Your task to perform on an android device: change notifications settings Image 0: 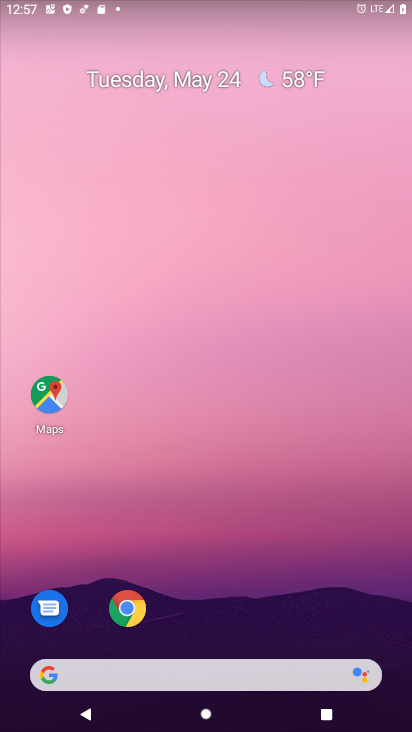
Step 0: press home button
Your task to perform on an android device: change notifications settings Image 1: 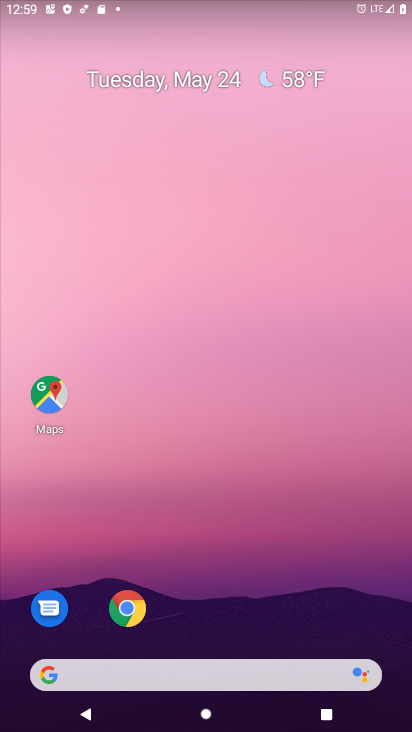
Step 1: drag from (294, 569) to (293, 107)
Your task to perform on an android device: change notifications settings Image 2: 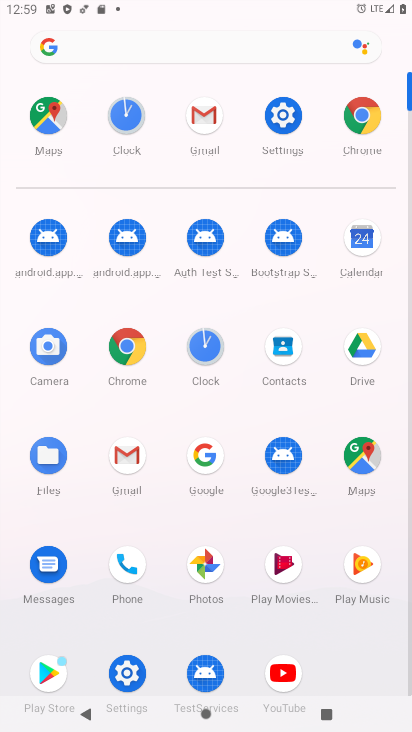
Step 2: click (274, 129)
Your task to perform on an android device: change notifications settings Image 3: 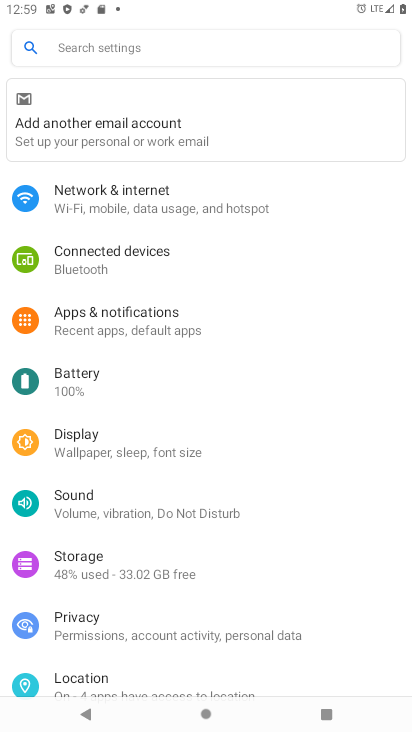
Step 3: click (113, 46)
Your task to perform on an android device: change notifications settings Image 4: 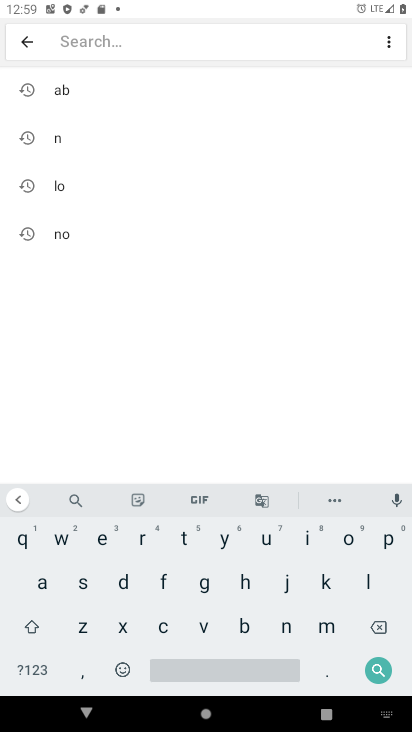
Step 4: click (285, 621)
Your task to perform on an android device: change notifications settings Image 5: 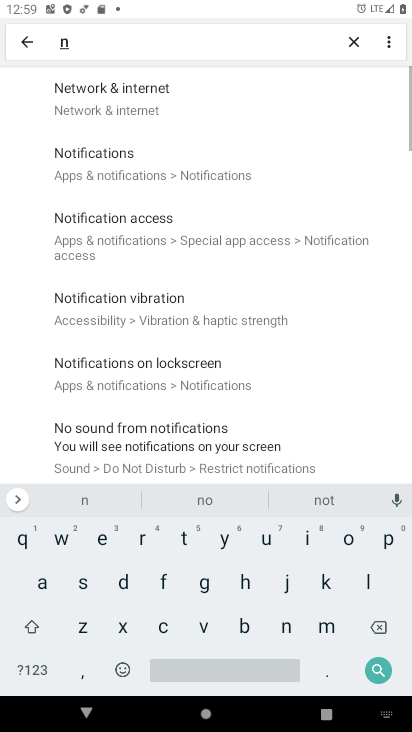
Step 5: click (344, 541)
Your task to perform on an android device: change notifications settings Image 6: 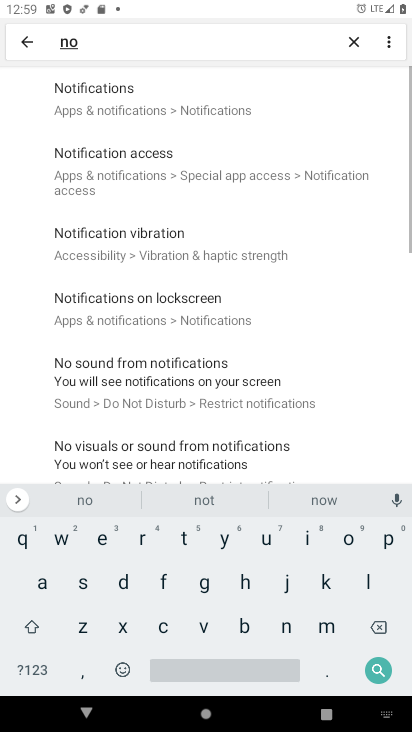
Step 6: click (143, 100)
Your task to perform on an android device: change notifications settings Image 7: 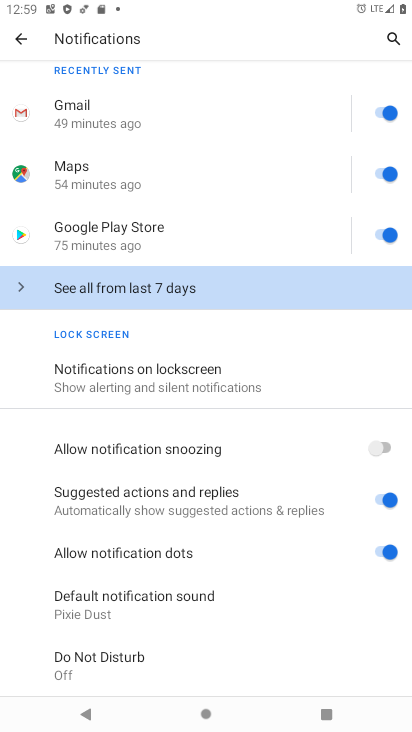
Step 7: click (139, 366)
Your task to perform on an android device: change notifications settings Image 8: 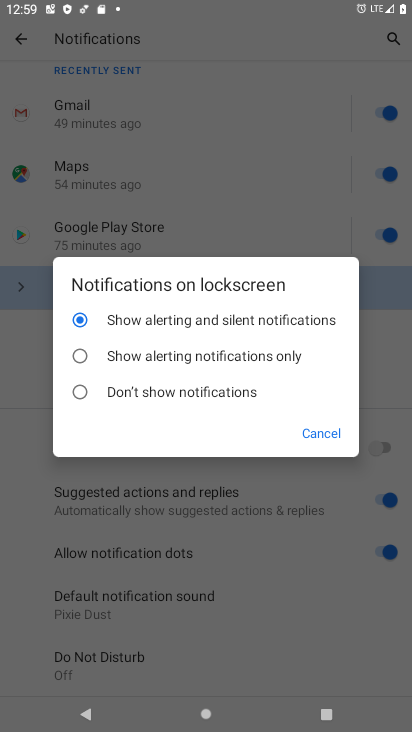
Step 8: click (131, 357)
Your task to perform on an android device: change notifications settings Image 9: 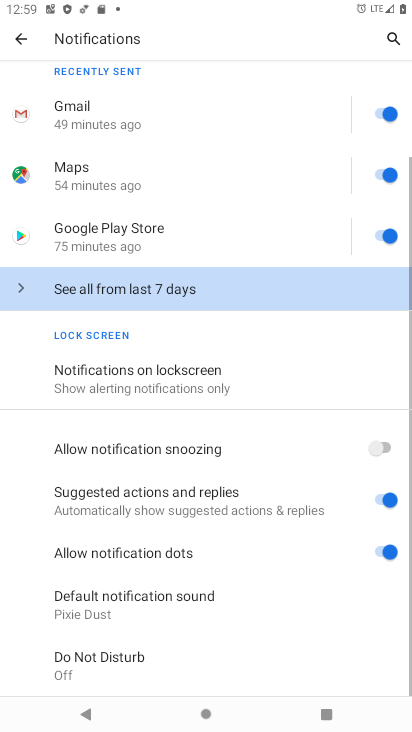
Step 9: task complete